Your task to perform on an android device: turn off javascript in the chrome app Image 0: 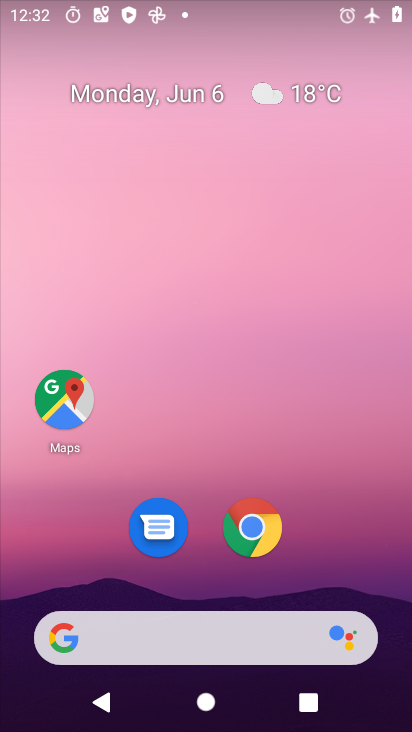
Step 0: click (253, 525)
Your task to perform on an android device: turn off javascript in the chrome app Image 1: 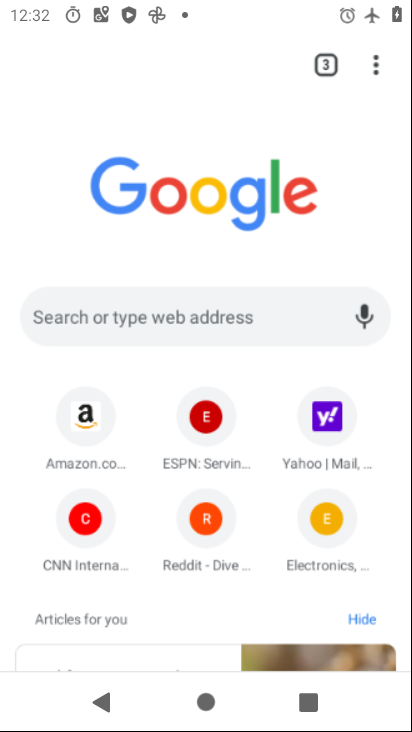
Step 1: click (374, 69)
Your task to perform on an android device: turn off javascript in the chrome app Image 2: 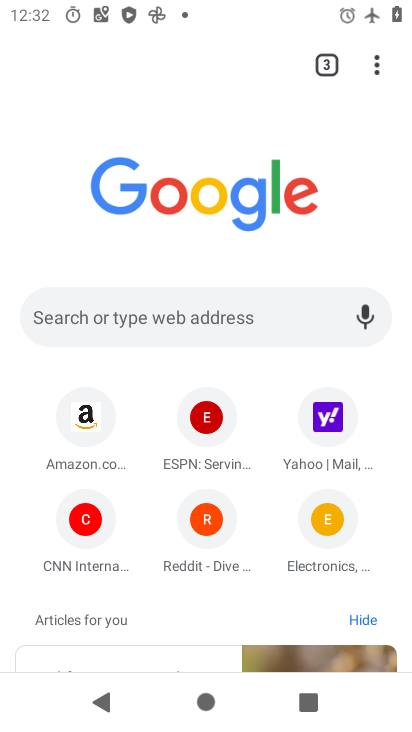
Step 2: click (372, 64)
Your task to perform on an android device: turn off javascript in the chrome app Image 3: 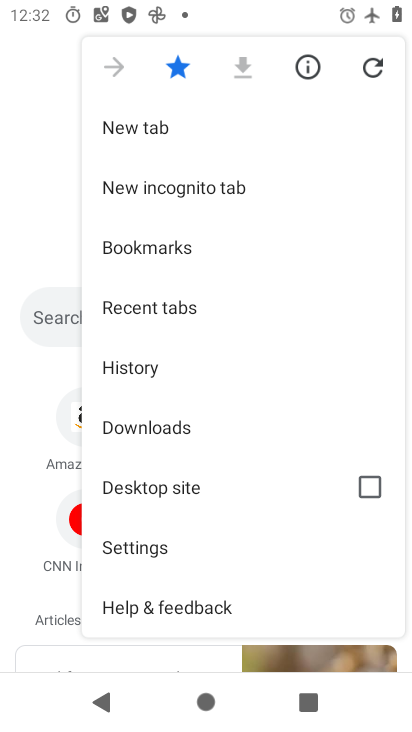
Step 3: drag from (296, 542) to (271, 114)
Your task to perform on an android device: turn off javascript in the chrome app Image 4: 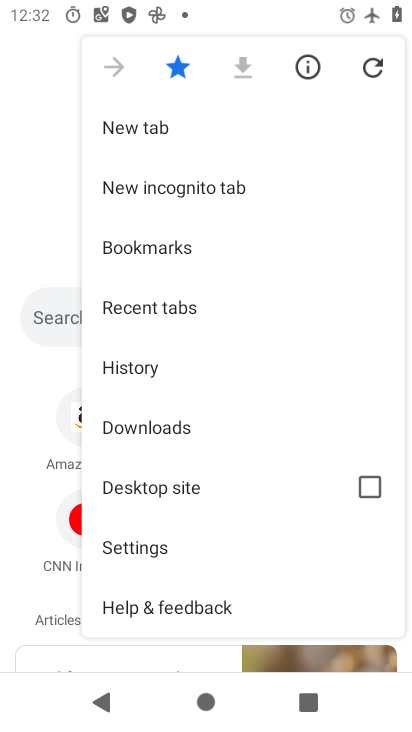
Step 4: click (199, 534)
Your task to perform on an android device: turn off javascript in the chrome app Image 5: 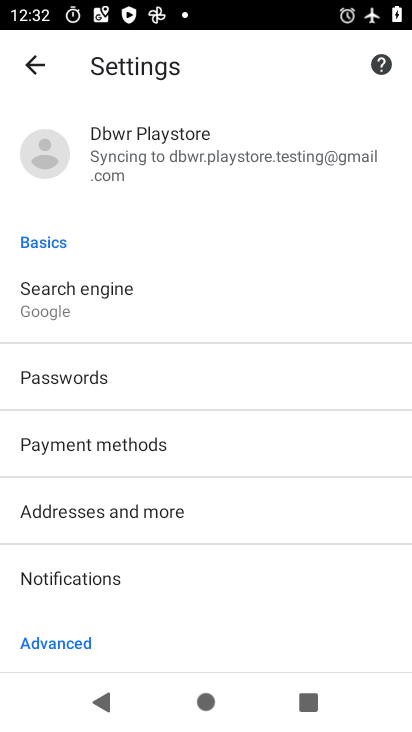
Step 5: drag from (246, 532) to (234, 2)
Your task to perform on an android device: turn off javascript in the chrome app Image 6: 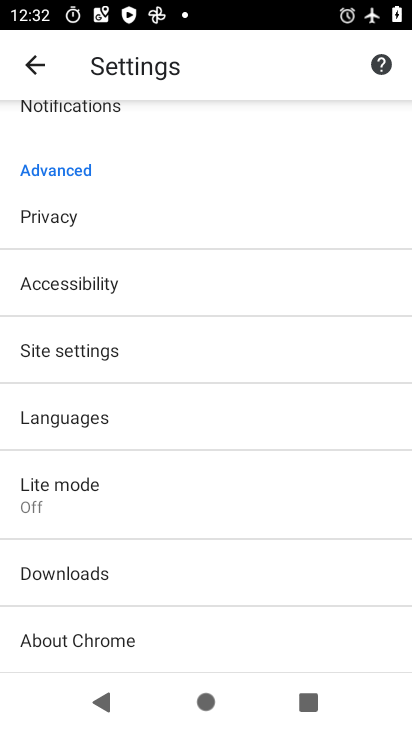
Step 6: click (109, 358)
Your task to perform on an android device: turn off javascript in the chrome app Image 7: 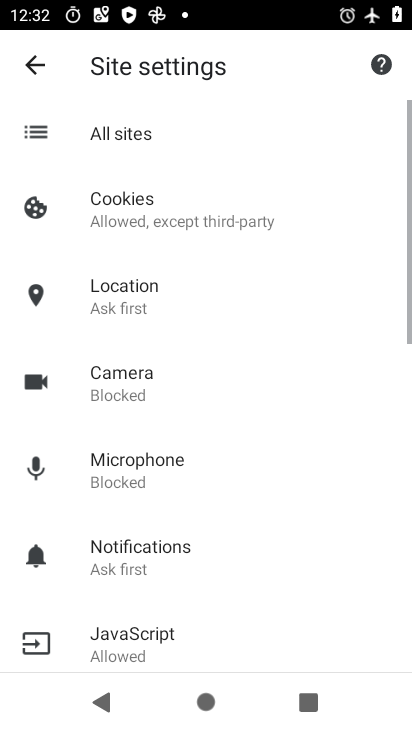
Step 7: drag from (223, 493) to (205, 204)
Your task to perform on an android device: turn off javascript in the chrome app Image 8: 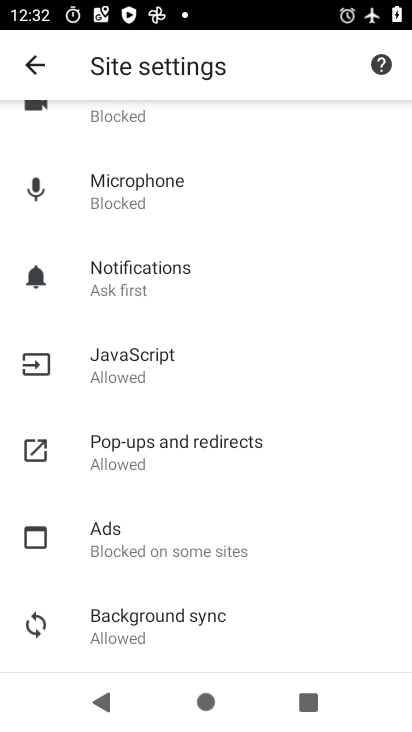
Step 8: click (150, 357)
Your task to perform on an android device: turn off javascript in the chrome app Image 9: 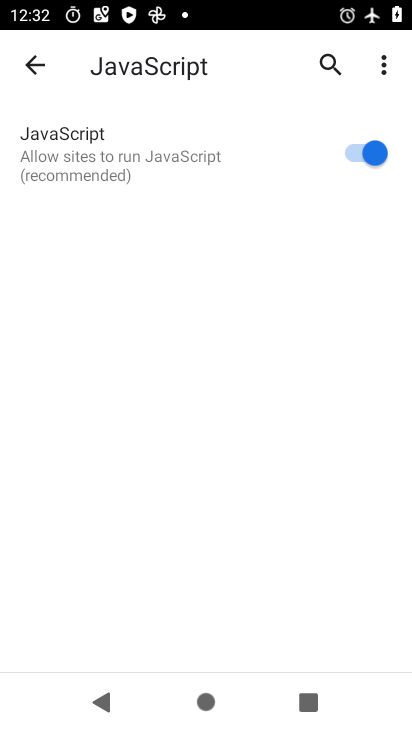
Step 9: click (367, 139)
Your task to perform on an android device: turn off javascript in the chrome app Image 10: 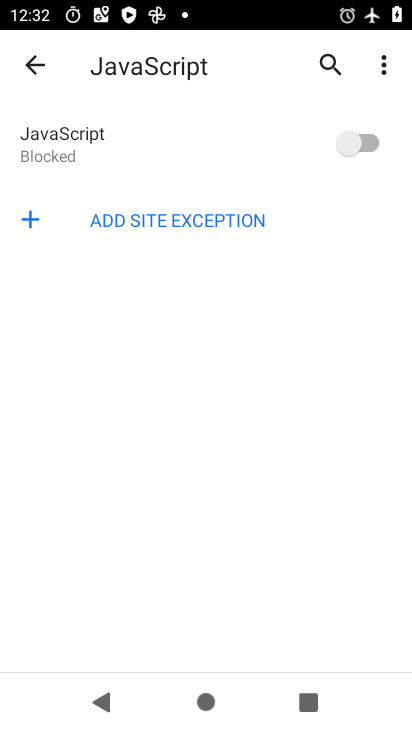
Step 10: task complete